Your task to perform on an android device: check data usage Image 0: 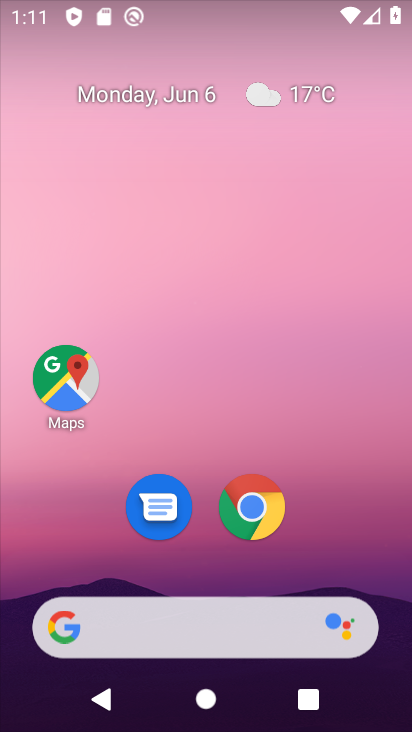
Step 0: drag from (235, 597) to (214, 159)
Your task to perform on an android device: check data usage Image 1: 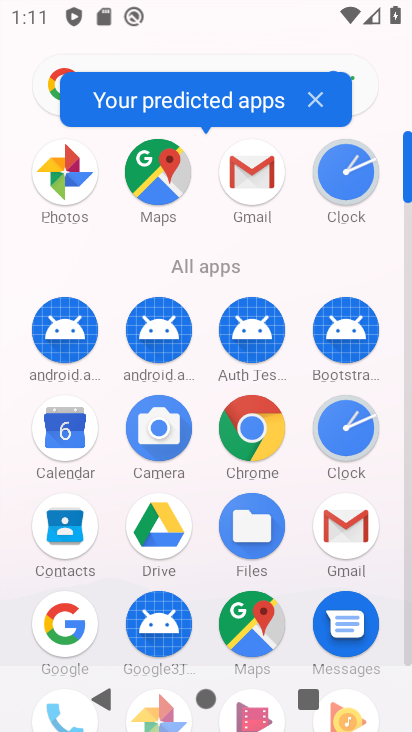
Step 1: drag from (194, 684) to (141, 234)
Your task to perform on an android device: check data usage Image 2: 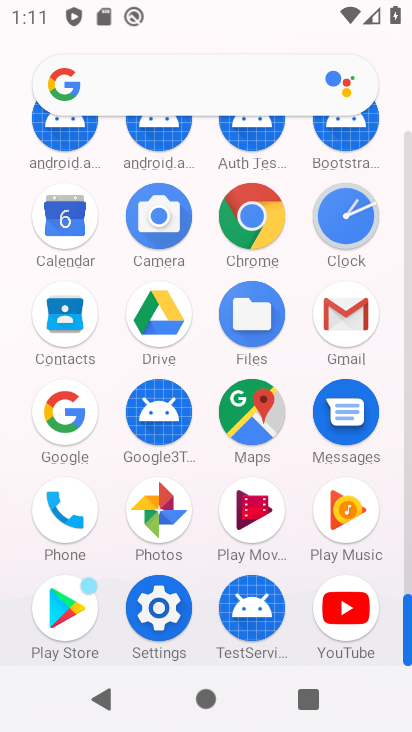
Step 2: click (167, 608)
Your task to perform on an android device: check data usage Image 3: 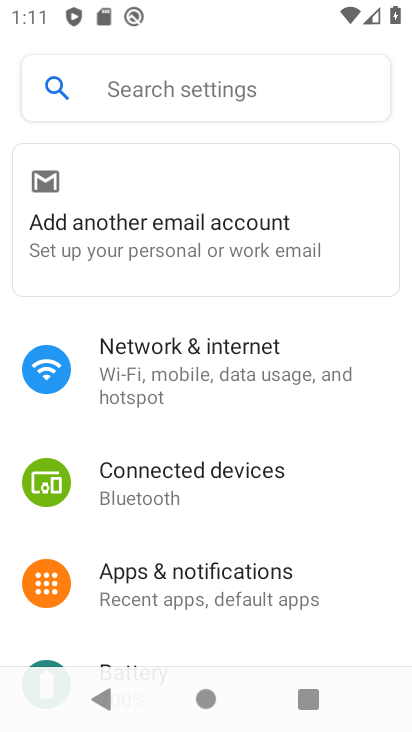
Step 3: click (187, 364)
Your task to perform on an android device: check data usage Image 4: 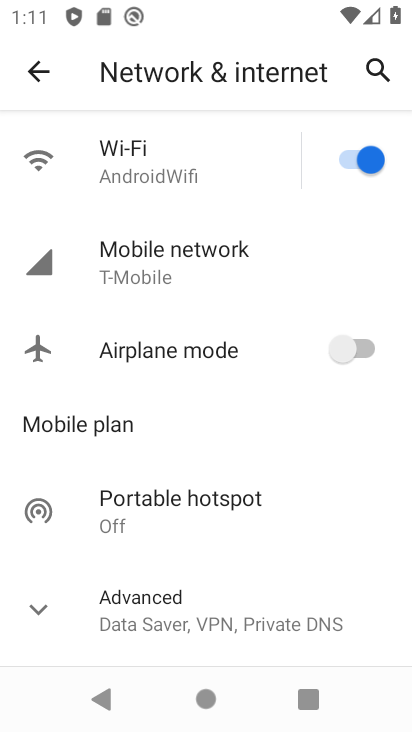
Step 4: click (171, 269)
Your task to perform on an android device: check data usage Image 5: 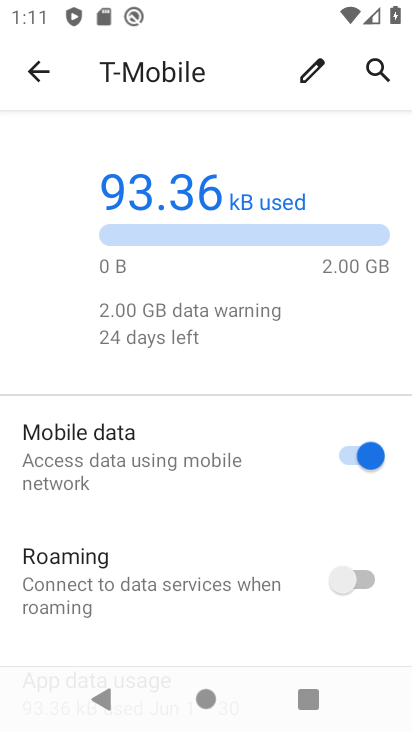
Step 5: task complete